Your task to perform on an android device: Go to Maps Image 0: 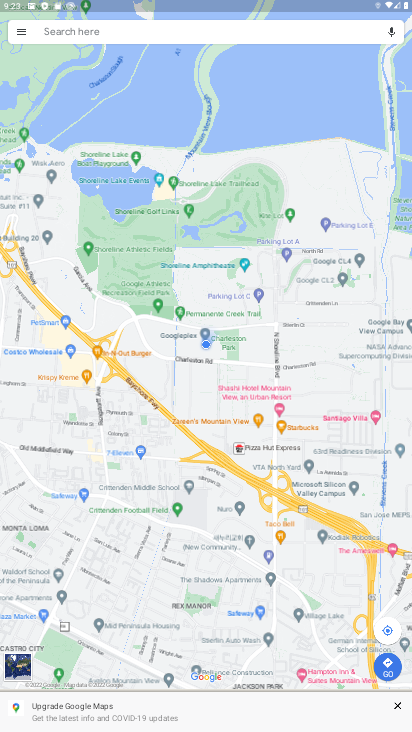
Step 0: task complete